Your task to perform on an android device: What's on my calendar tomorrow? Image 0: 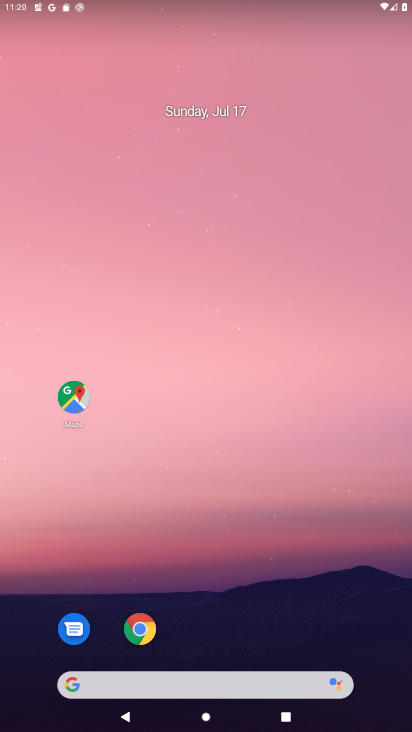
Step 0: drag from (221, 686) to (293, 65)
Your task to perform on an android device: What's on my calendar tomorrow? Image 1: 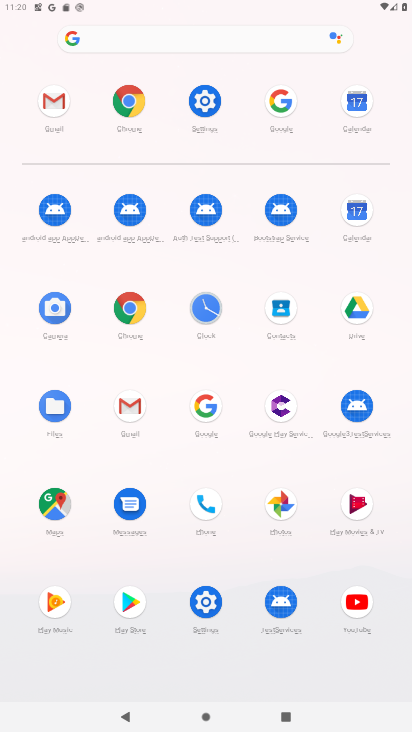
Step 1: click (356, 104)
Your task to perform on an android device: What's on my calendar tomorrow? Image 2: 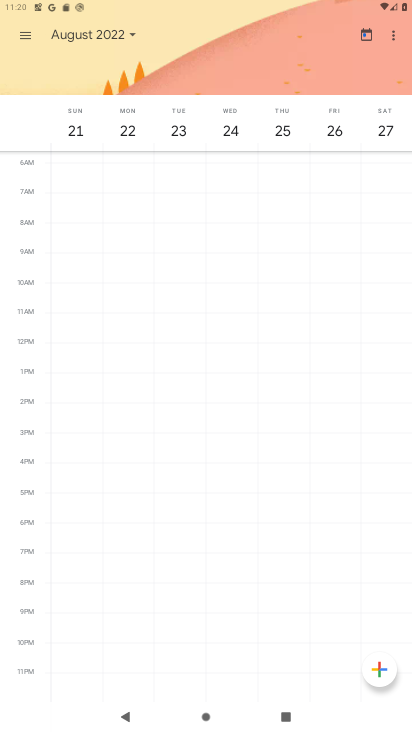
Step 2: click (368, 36)
Your task to perform on an android device: What's on my calendar tomorrow? Image 3: 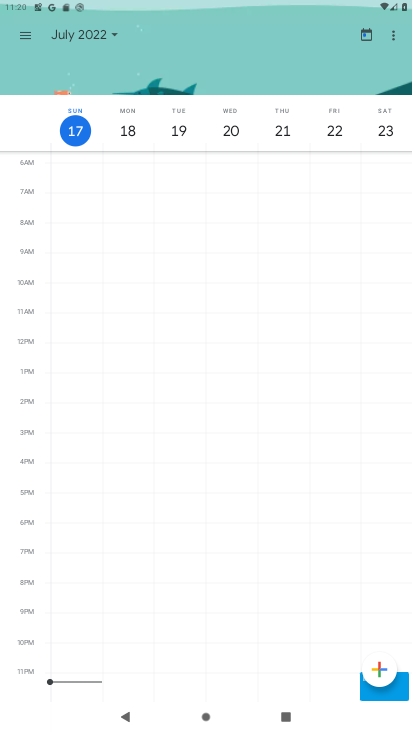
Step 3: click (110, 31)
Your task to perform on an android device: What's on my calendar tomorrow? Image 4: 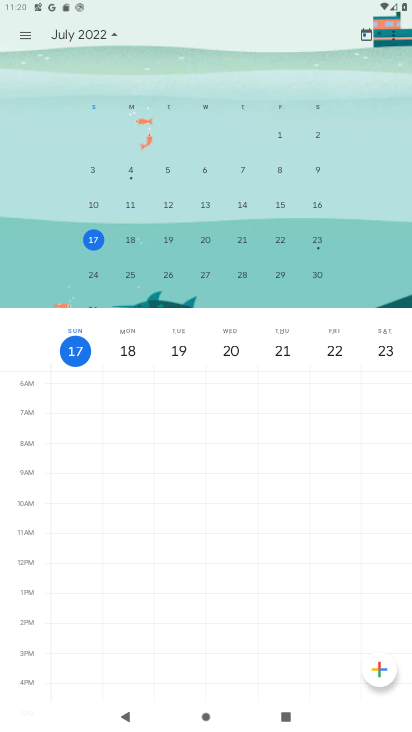
Step 4: click (138, 242)
Your task to perform on an android device: What's on my calendar tomorrow? Image 5: 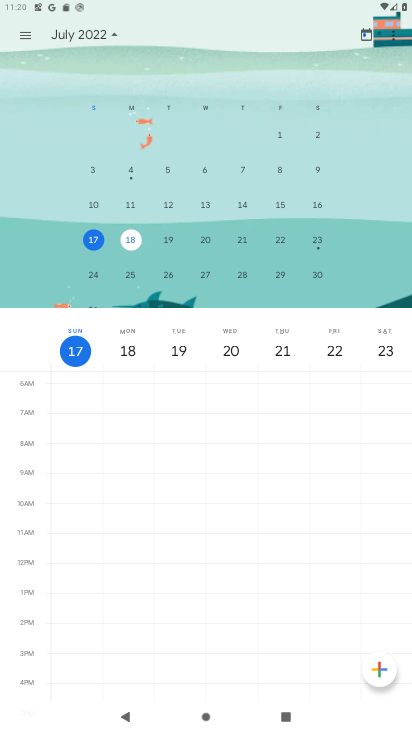
Step 5: click (138, 242)
Your task to perform on an android device: What's on my calendar tomorrow? Image 6: 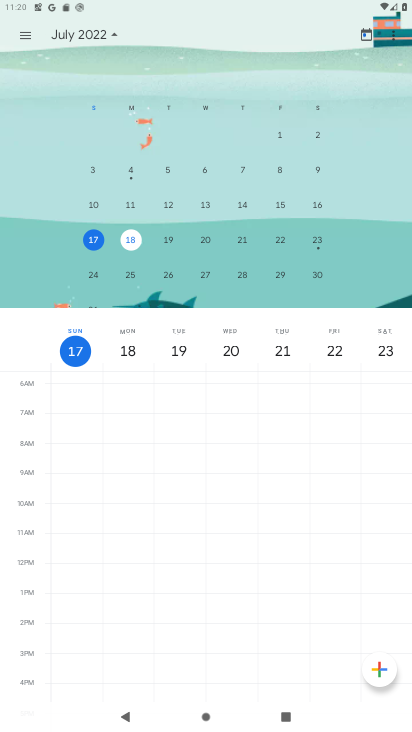
Step 6: click (22, 34)
Your task to perform on an android device: What's on my calendar tomorrow? Image 7: 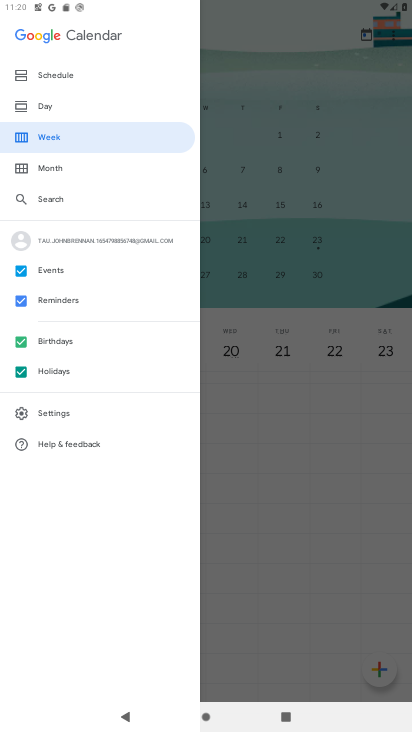
Step 7: click (51, 77)
Your task to perform on an android device: What's on my calendar tomorrow? Image 8: 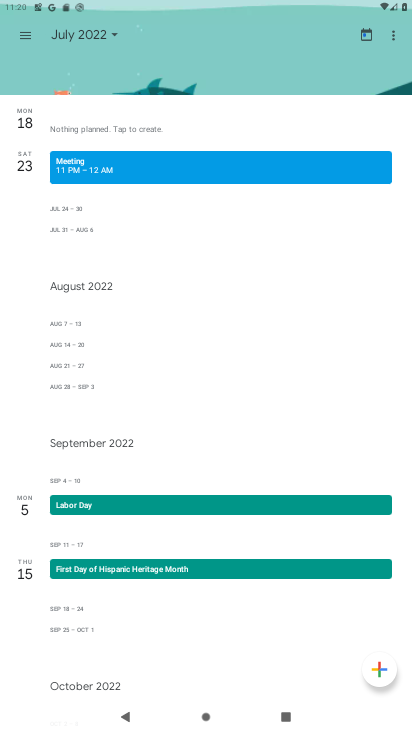
Step 8: task complete